Your task to perform on an android device: open wifi settings Image 0: 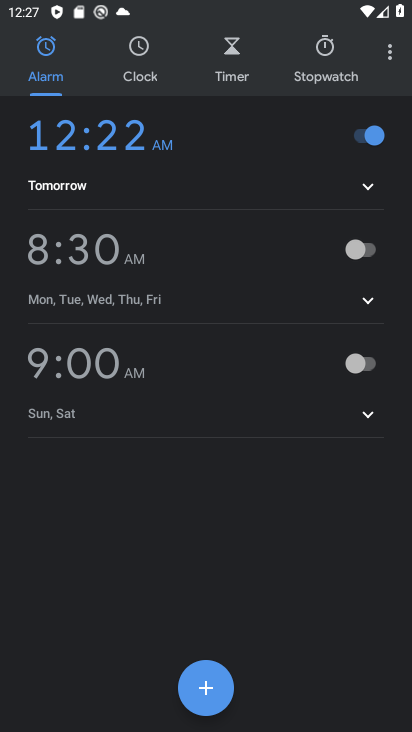
Step 0: press home button
Your task to perform on an android device: open wifi settings Image 1: 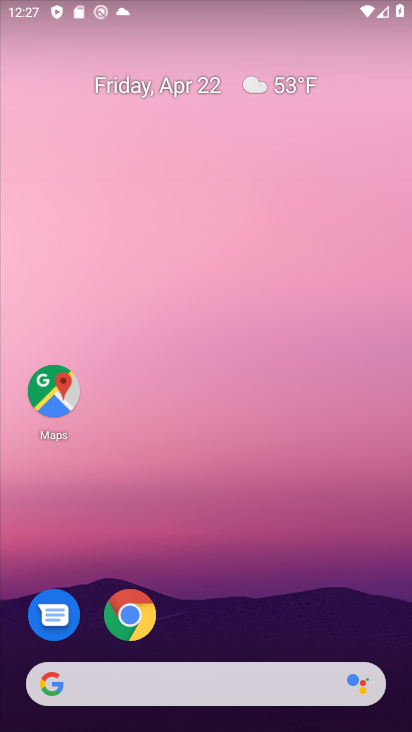
Step 1: drag from (212, 710) to (352, 17)
Your task to perform on an android device: open wifi settings Image 2: 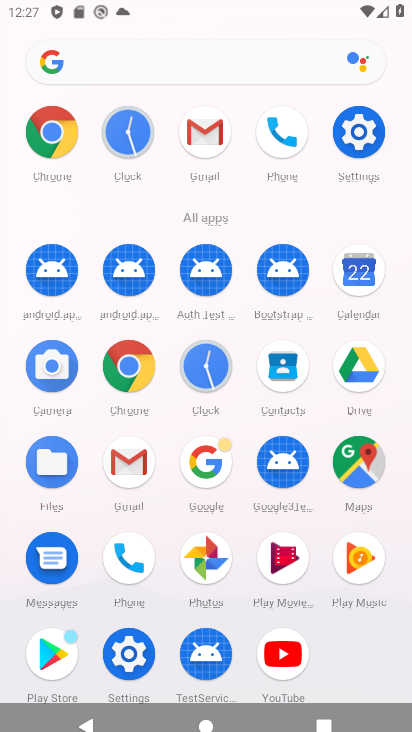
Step 2: click (372, 122)
Your task to perform on an android device: open wifi settings Image 3: 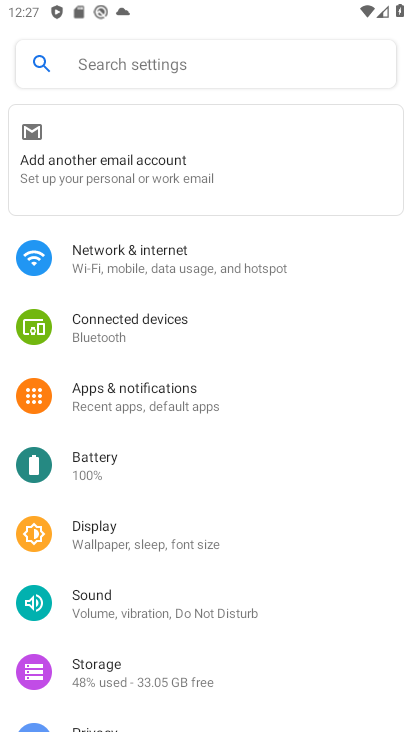
Step 3: click (124, 280)
Your task to perform on an android device: open wifi settings Image 4: 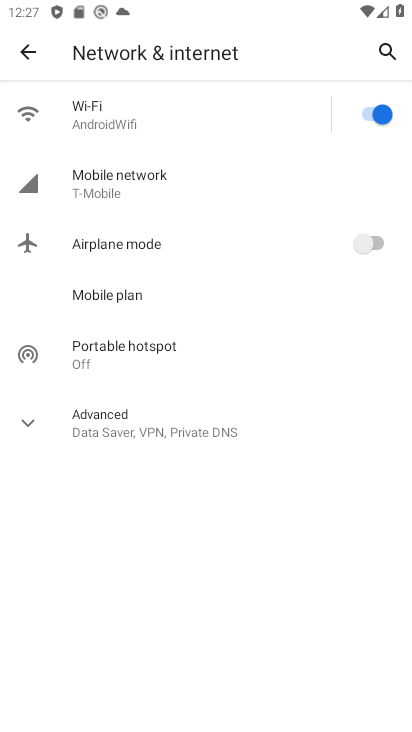
Step 4: click (145, 117)
Your task to perform on an android device: open wifi settings Image 5: 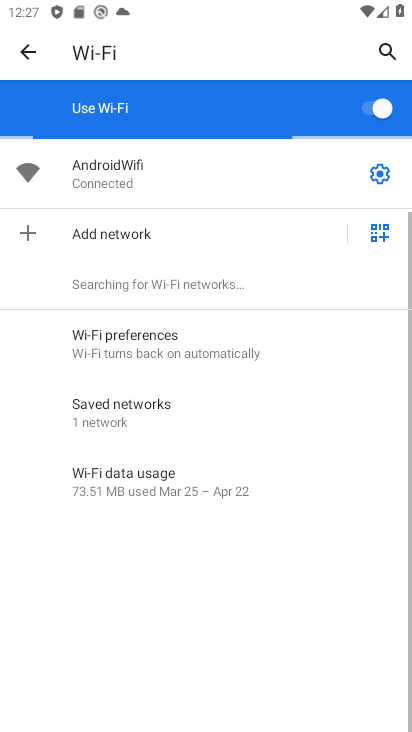
Step 5: click (380, 175)
Your task to perform on an android device: open wifi settings Image 6: 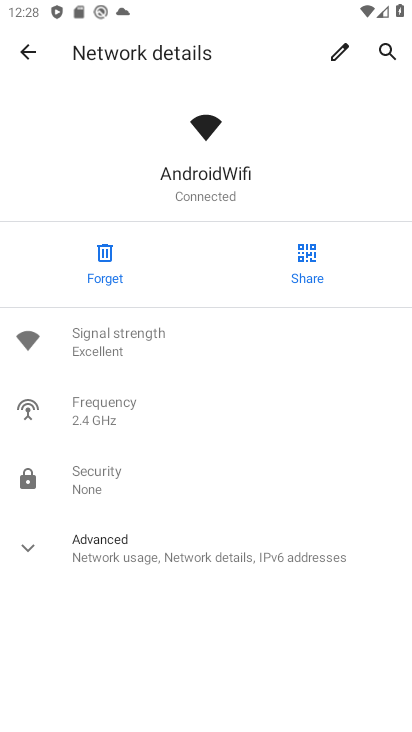
Step 6: task complete